Your task to perform on an android device: Go to internet settings Image 0: 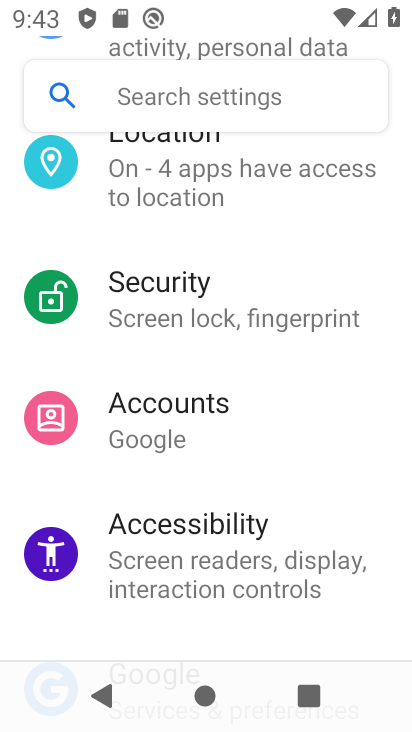
Step 0: drag from (319, 236) to (252, 617)
Your task to perform on an android device: Go to internet settings Image 1: 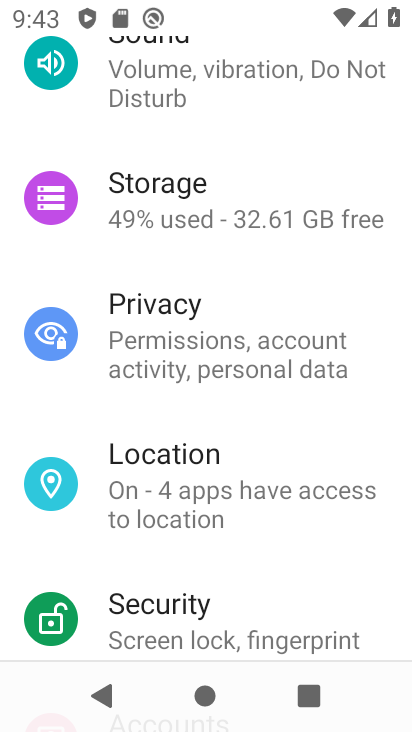
Step 1: drag from (284, 212) to (192, 726)
Your task to perform on an android device: Go to internet settings Image 2: 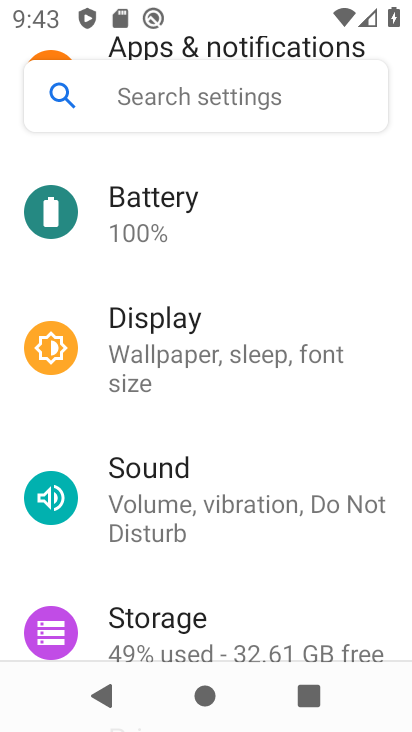
Step 2: drag from (268, 143) to (181, 513)
Your task to perform on an android device: Go to internet settings Image 3: 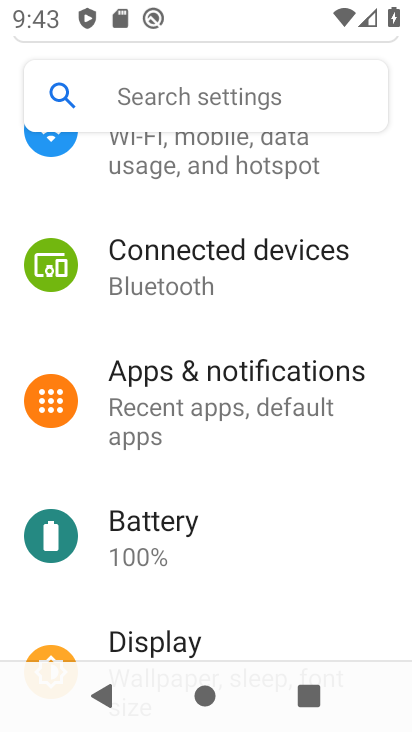
Step 3: drag from (181, 513) to (178, 626)
Your task to perform on an android device: Go to internet settings Image 4: 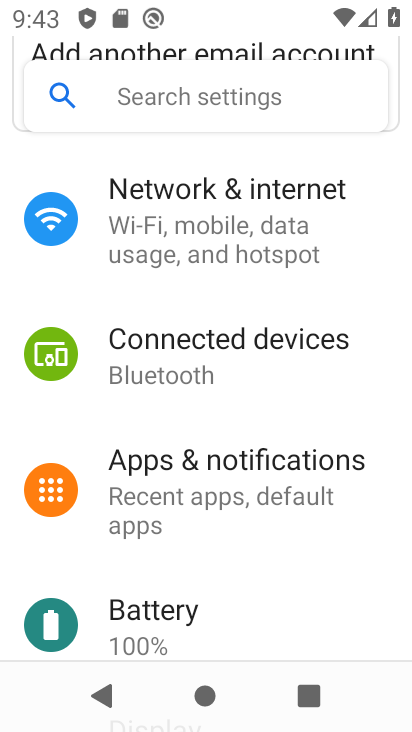
Step 4: click (197, 236)
Your task to perform on an android device: Go to internet settings Image 5: 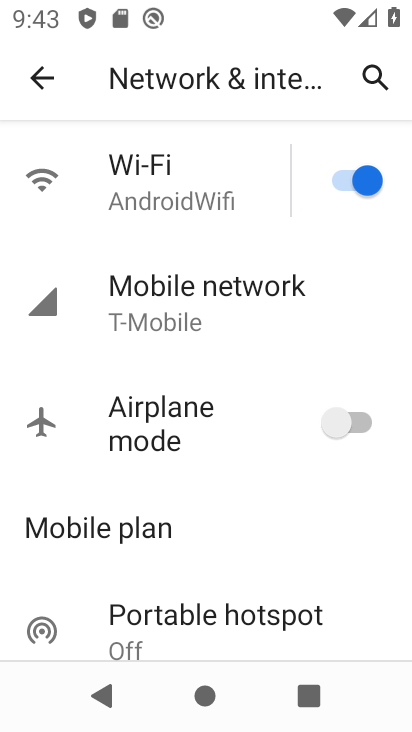
Step 5: task complete